Your task to perform on an android device: Open the Play Movies app and select the watchlist tab. Image 0: 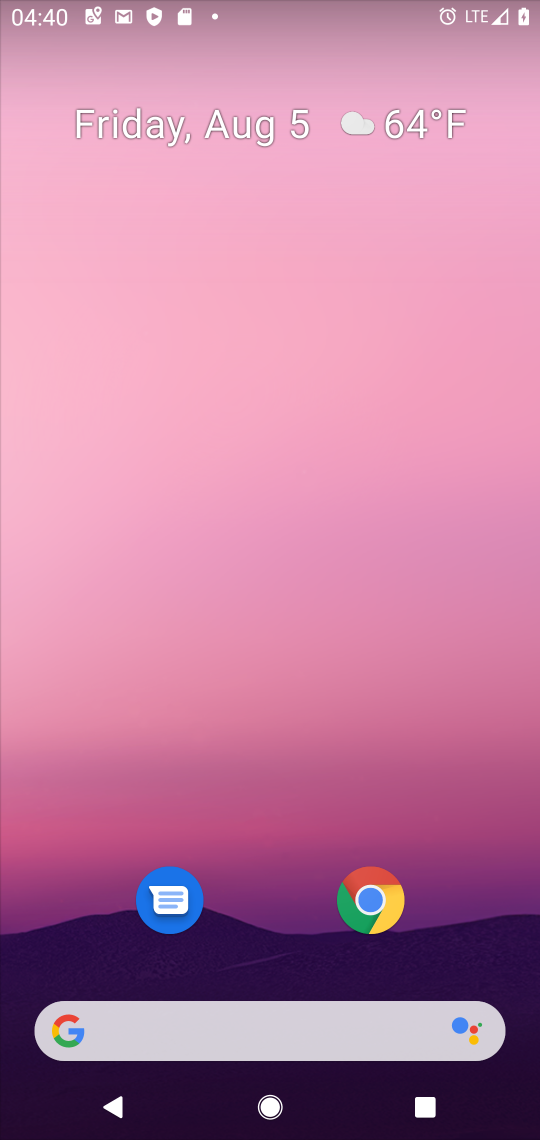
Step 0: drag from (242, 975) to (318, 49)
Your task to perform on an android device: Open the Play Movies app and select the watchlist tab. Image 1: 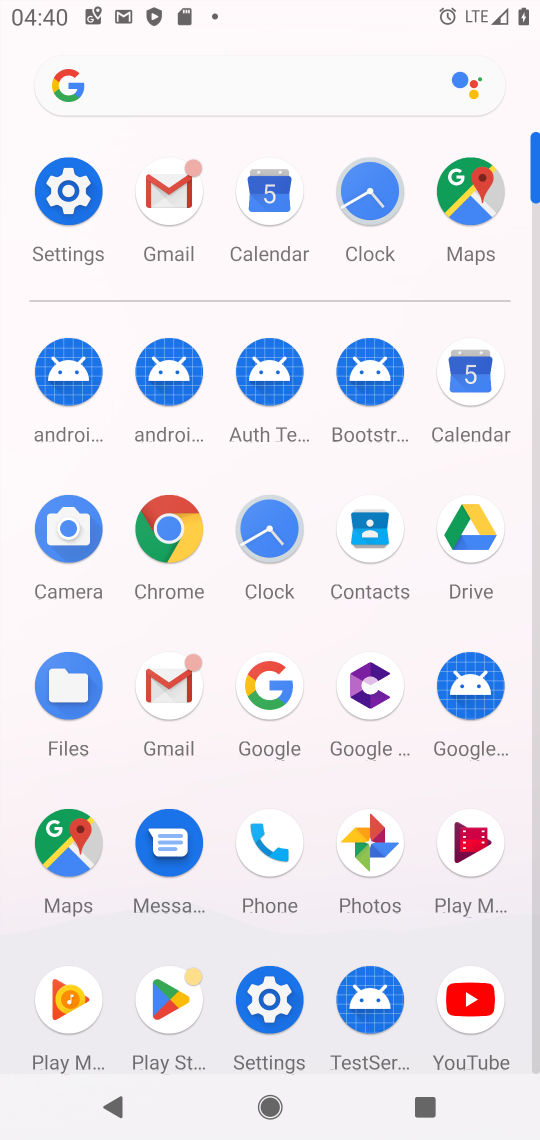
Step 1: click (463, 856)
Your task to perform on an android device: Open the Play Movies app and select the watchlist tab. Image 2: 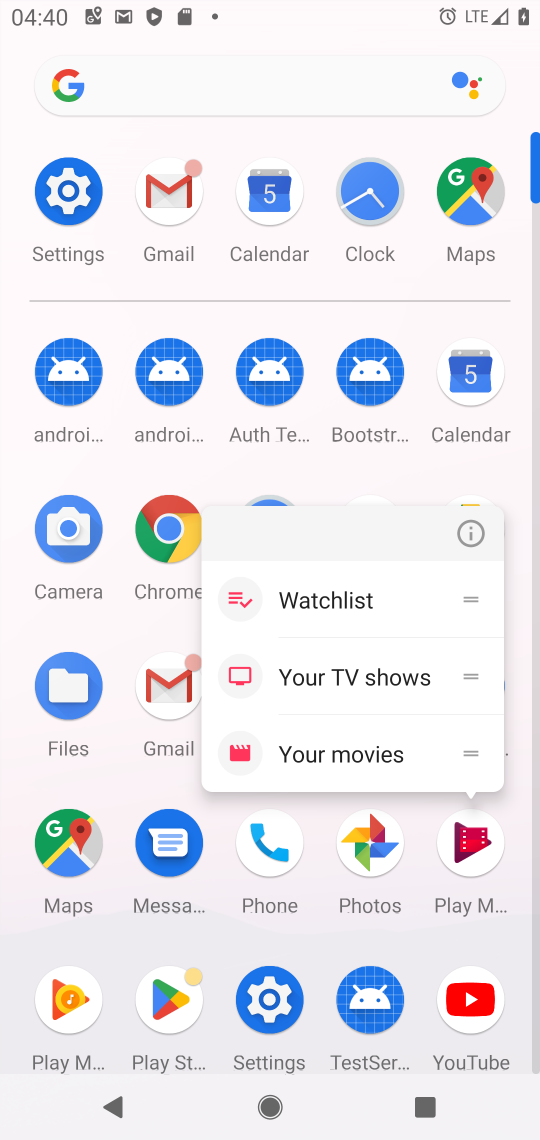
Step 2: click (463, 856)
Your task to perform on an android device: Open the Play Movies app and select the watchlist tab. Image 3: 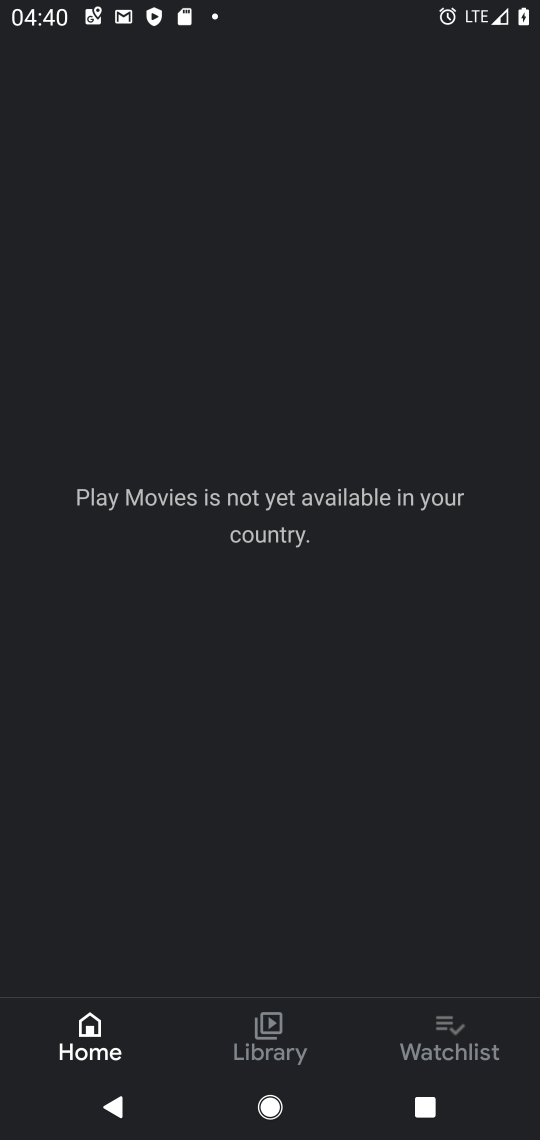
Step 3: click (441, 1024)
Your task to perform on an android device: Open the Play Movies app and select the watchlist tab. Image 4: 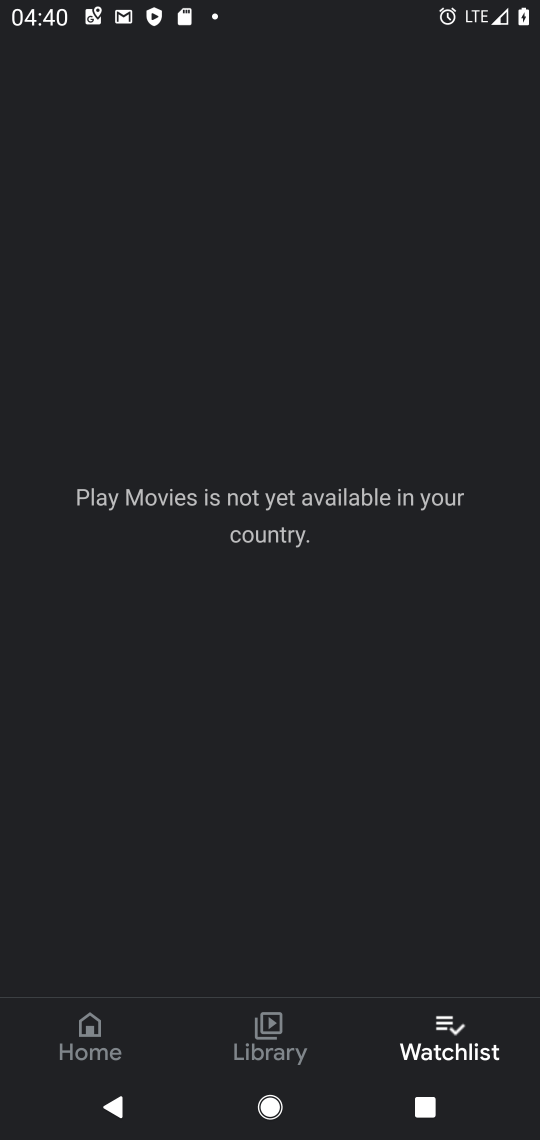
Step 4: task complete